Your task to perform on an android device: all mails in gmail Image 0: 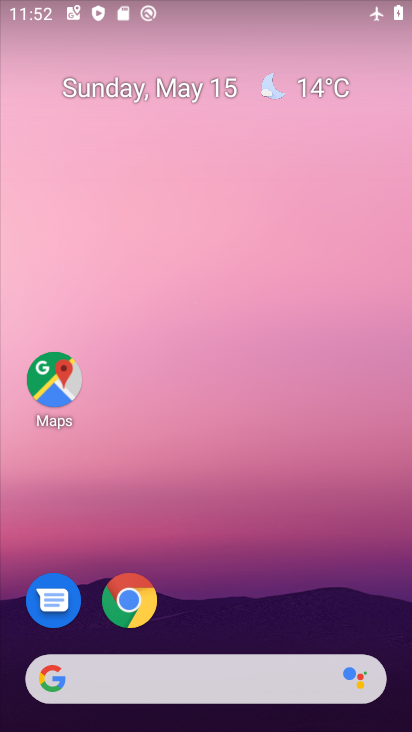
Step 0: drag from (358, 540) to (311, 110)
Your task to perform on an android device: all mails in gmail Image 1: 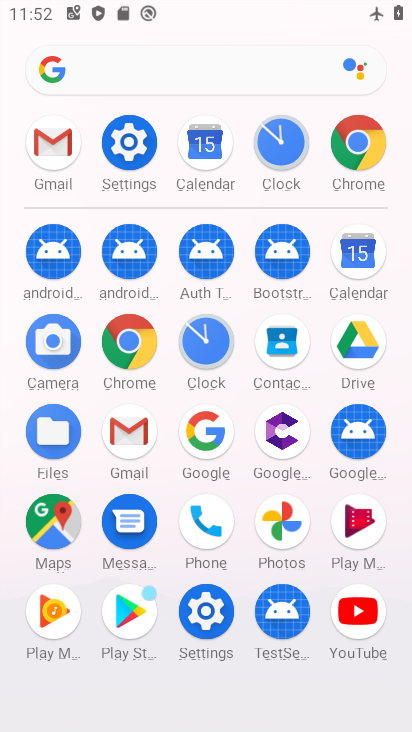
Step 1: click (127, 429)
Your task to perform on an android device: all mails in gmail Image 2: 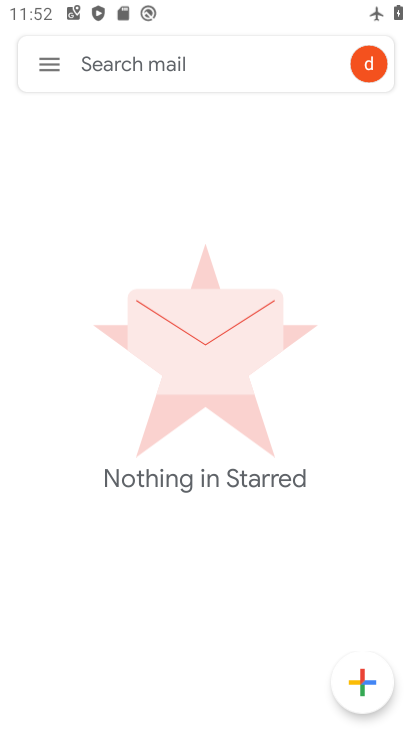
Step 2: click (41, 57)
Your task to perform on an android device: all mails in gmail Image 3: 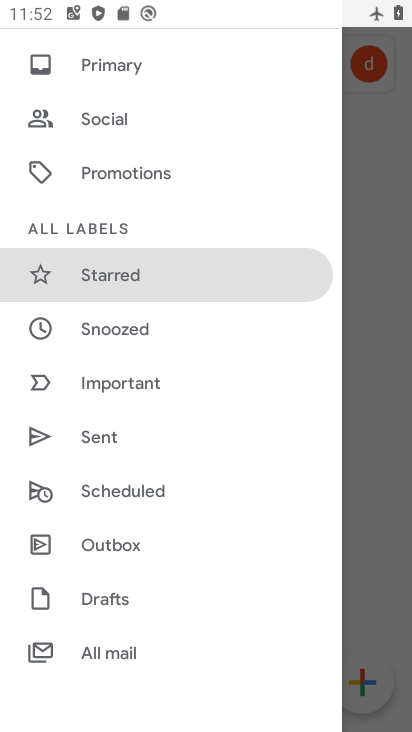
Step 3: drag from (211, 553) to (175, 237)
Your task to perform on an android device: all mails in gmail Image 4: 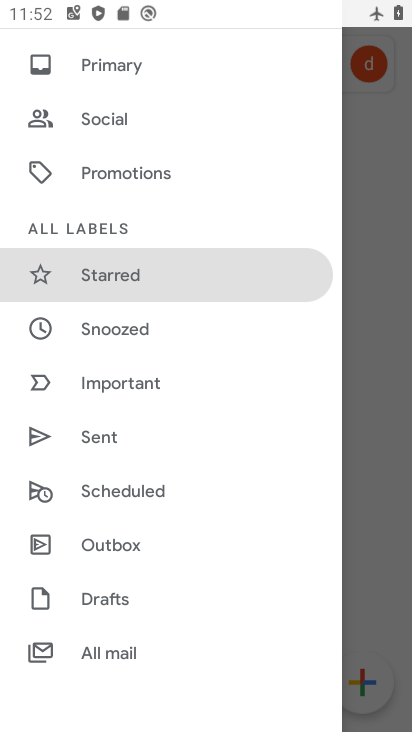
Step 4: click (111, 648)
Your task to perform on an android device: all mails in gmail Image 5: 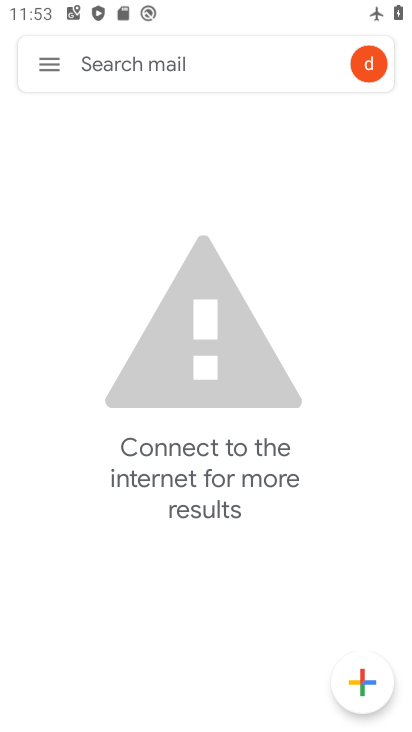
Step 5: task complete